Your task to perform on an android device: open sync settings in chrome Image 0: 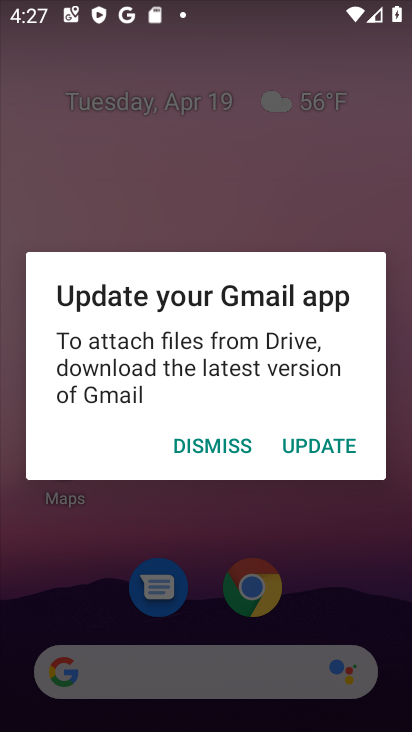
Step 0: press home button
Your task to perform on an android device: open sync settings in chrome Image 1: 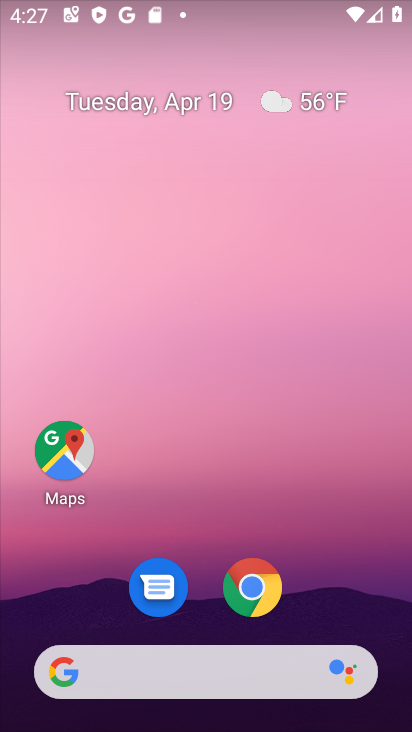
Step 1: click (257, 591)
Your task to perform on an android device: open sync settings in chrome Image 2: 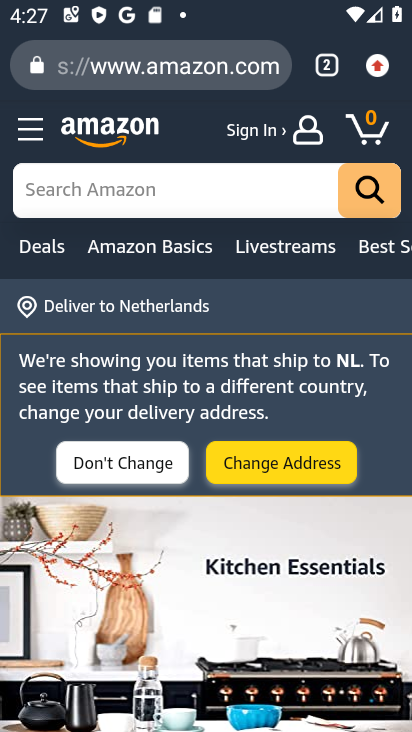
Step 2: click (377, 66)
Your task to perform on an android device: open sync settings in chrome Image 3: 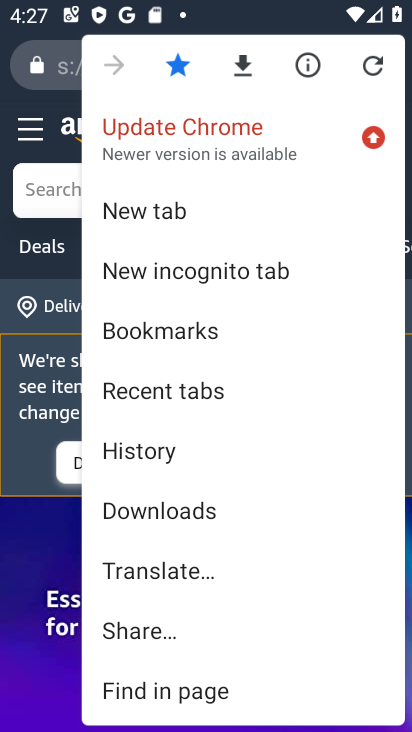
Step 3: drag from (151, 661) to (158, 238)
Your task to perform on an android device: open sync settings in chrome Image 4: 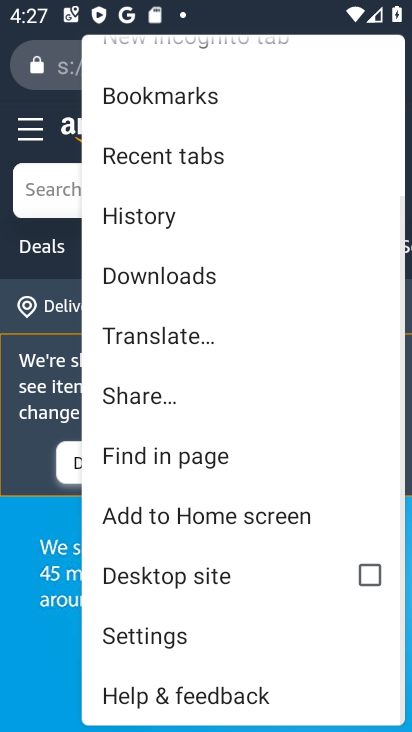
Step 4: click (154, 634)
Your task to perform on an android device: open sync settings in chrome Image 5: 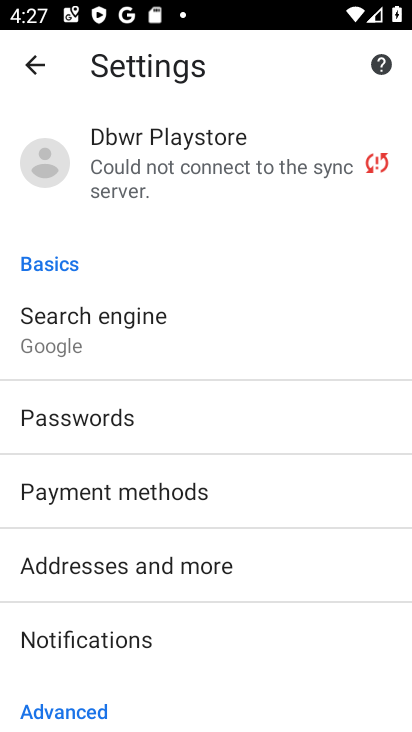
Step 5: drag from (155, 664) to (164, 212)
Your task to perform on an android device: open sync settings in chrome Image 6: 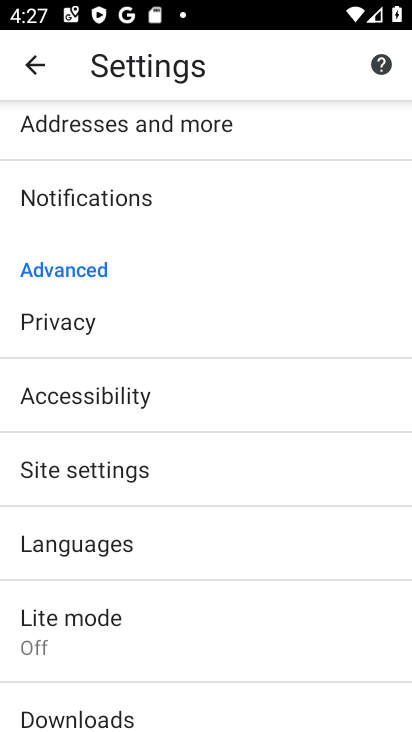
Step 6: click (109, 469)
Your task to perform on an android device: open sync settings in chrome Image 7: 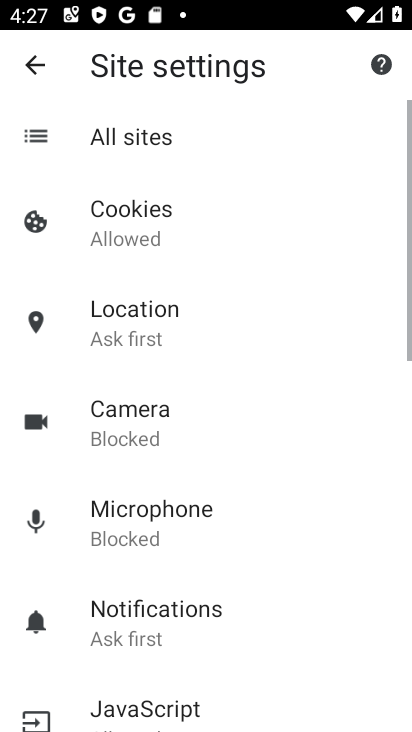
Step 7: drag from (167, 679) to (154, 278)
Your task to perform on an android device: open sync settings in chrome Image 8: 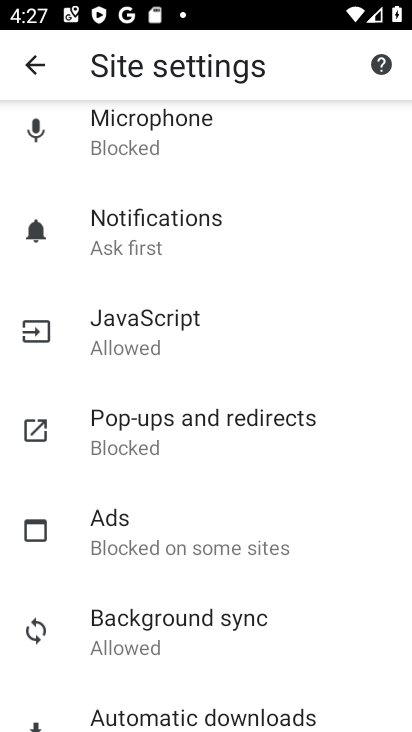
Step 8: click (184, 619)
Your task to perform on an android device: open sync settings in chrome Image 9: 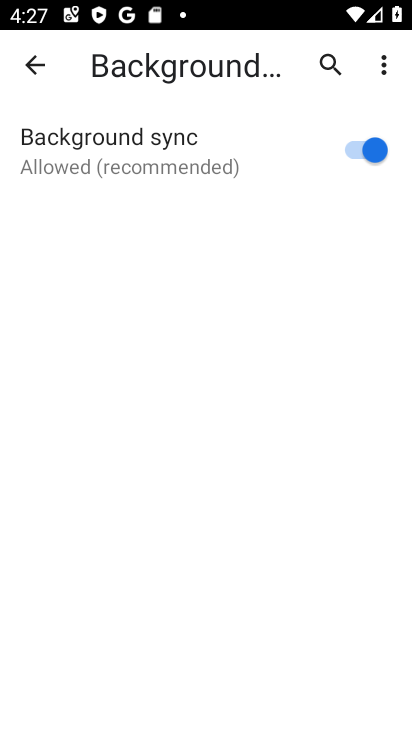
Step 9: task complete